Your task to perform on an android device: Open Maps and search for coffee Image 0: 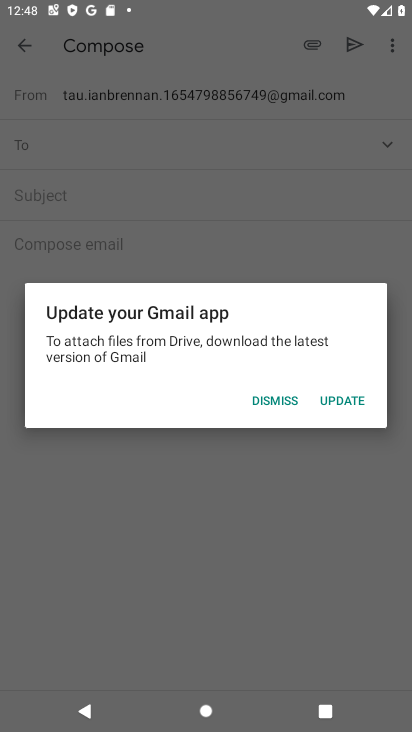
Step 0: press home button
Your task to perform on an android device: Open Maps and search for coffee Image 1: 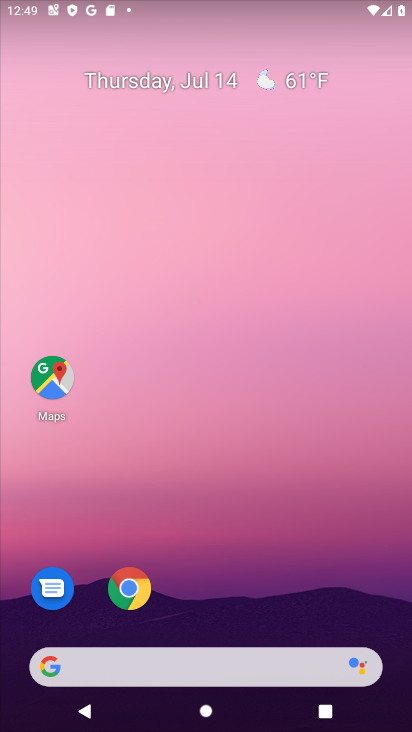
Step 1: click (52, 381)
Your task to perform on an android device: Open Maps and search for coffee Image 2: 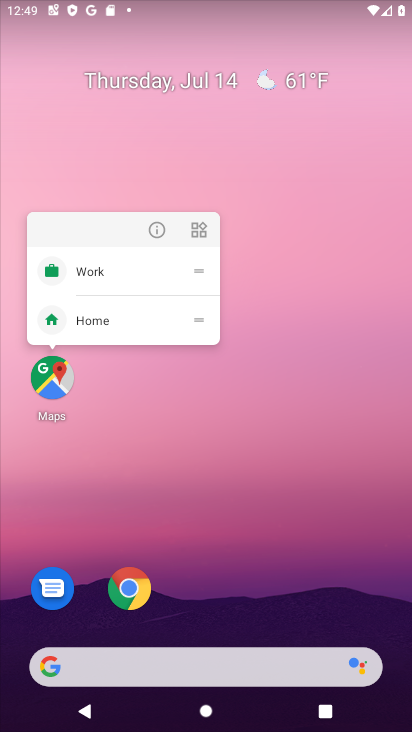
Step 2: click (59, 377)
Your task to perform on an android device: Open Maps and search for coffee Image 3: 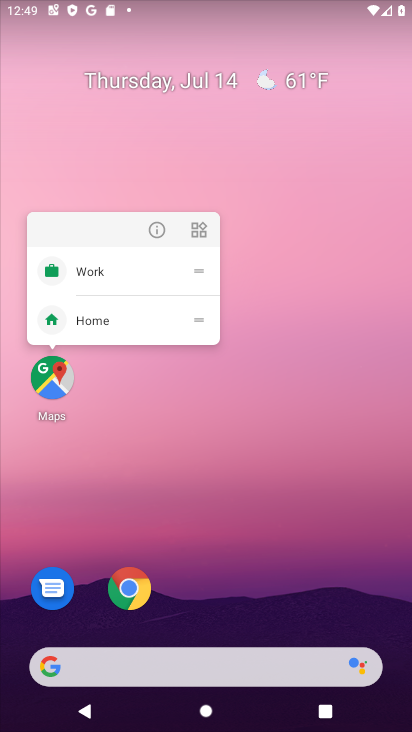
Step 3: click (57, 377)
Your task to perform on an android device: Open Maps and search for coffee Image 4: 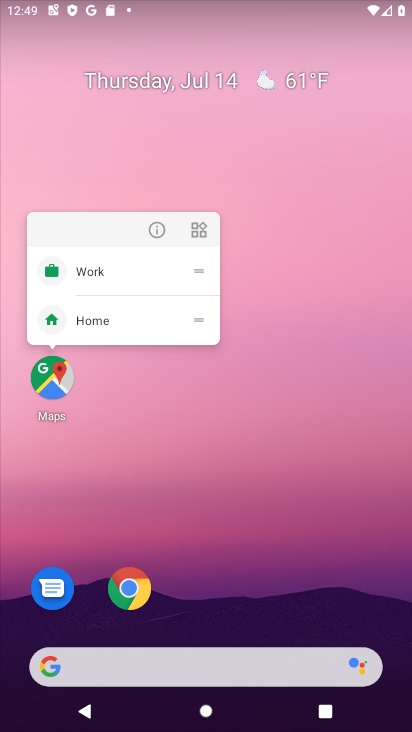
Step 4: click (54, 378)
Your task to perform on an android device: Open Maps and search for coffee Image 5: 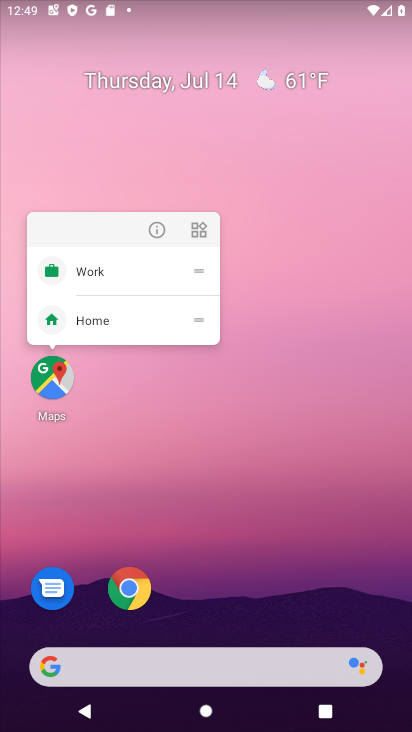
Step 5: click (193, 31)
Your task to perform on an android device: Open Maps and search for coffee Image 6: 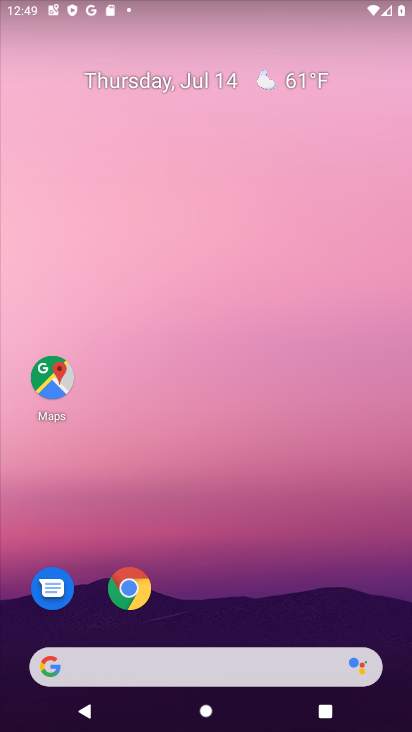
Step 6: click (56, 398)
Your task to perform on an android device: Open Maps and search for coffee Image 7: 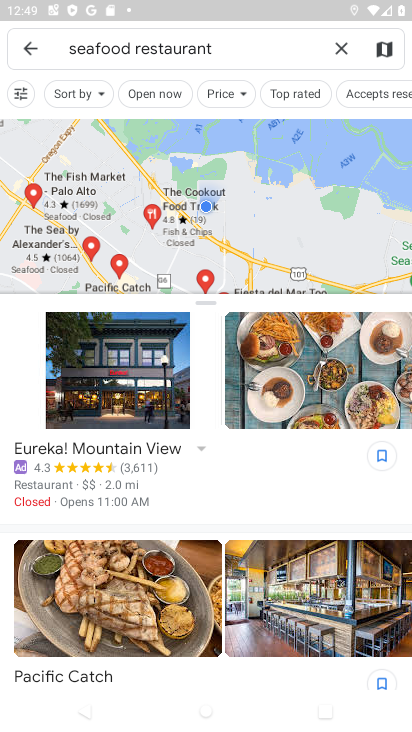
Step 7: click (343, 46)
Your task to perform on an android device: Open Maps and search for coffee Image 8: 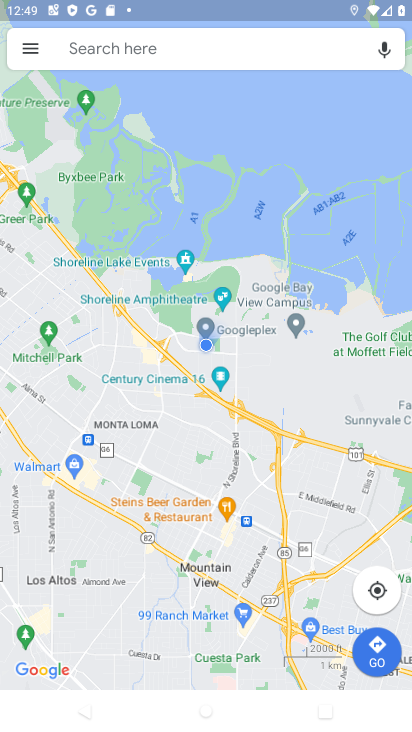
Step 8: click (217, 40)
Your task to perform on an android device: Open Maps and search for coffee Image 9: 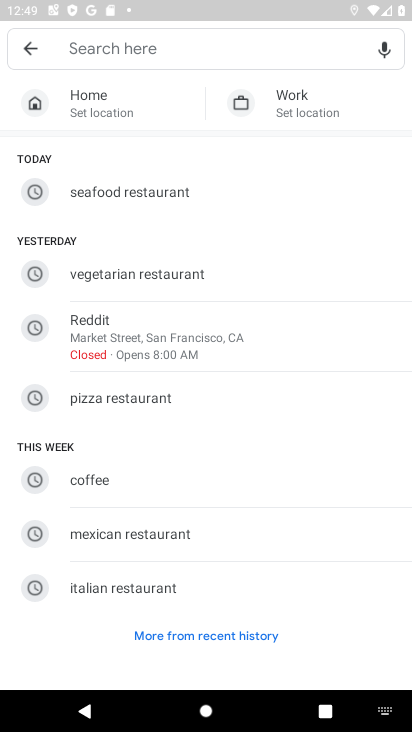
Step 9: type "coffee"
Your task to perform on an android device: Open Maps and search for coffee Image 10: 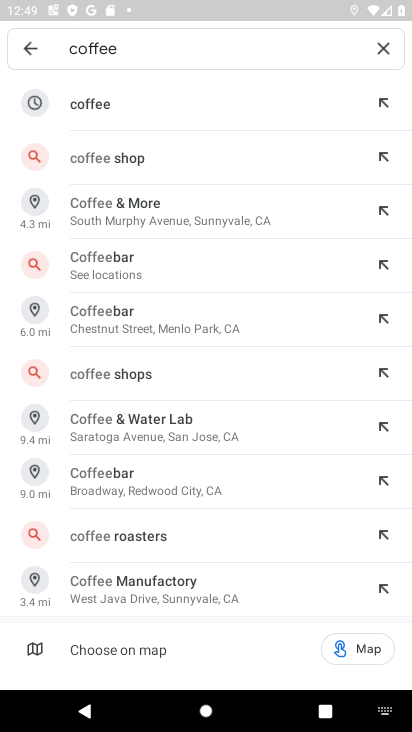
Step 10: click (102, 97)
Your task to perform on an android device: Open Maps and search for coffee Image 11: 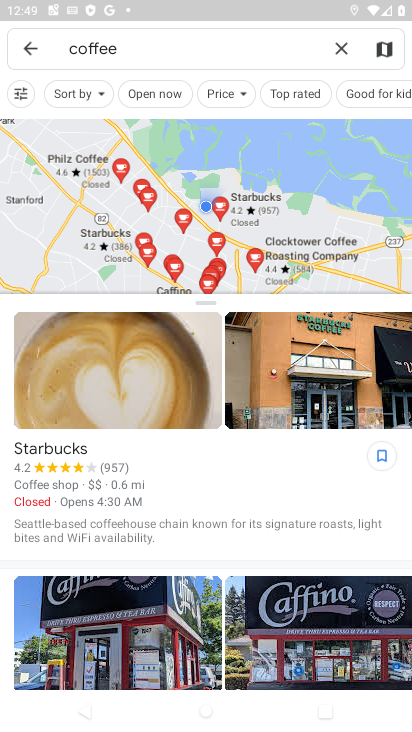
Step 11: task complete